Your task to perform on an android device: Show me popular games on the Play Store Image 0: 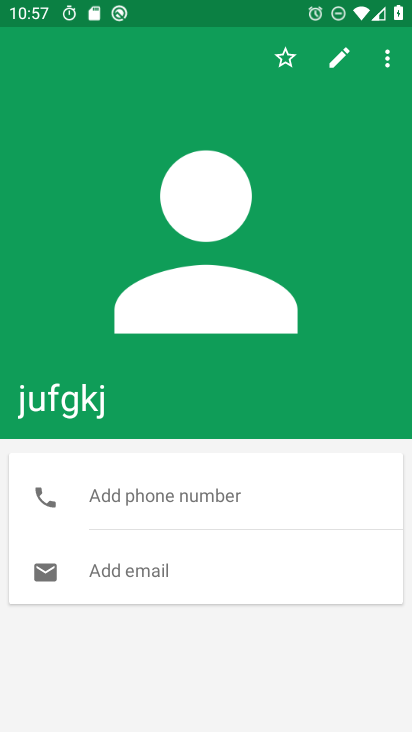
Step 0: press home button
Your task to perform on an android device: Show me popular games on the Play Store Image 1: 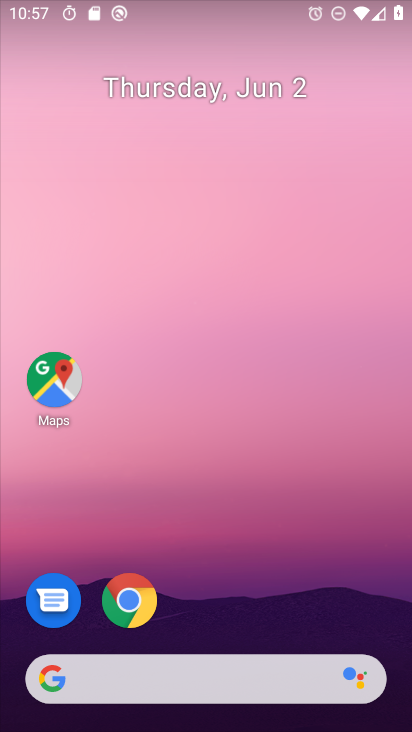
Step 1: drag from (238, 600) to (236, 104)
Your task to perform on an android device: Show me popular games on the Play Store Image 2: 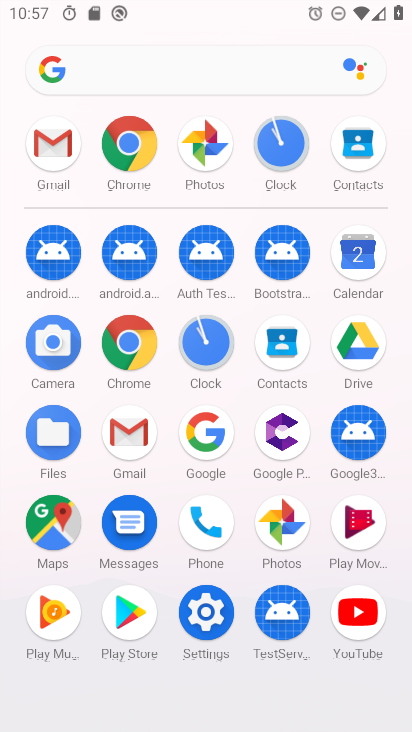
Step 2: click (133, 609)
Your task to perform on an android device: Show me popular games on the Play Store Image 3: 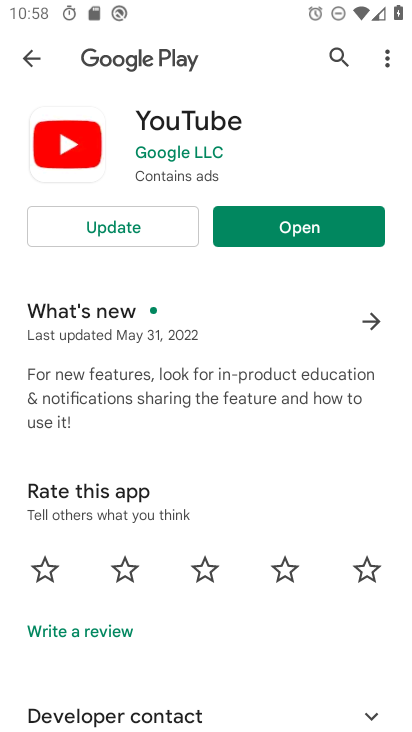
Step 3: press back button
Your task to perform on an android device: Show me popular games on the Play Store Image 4: 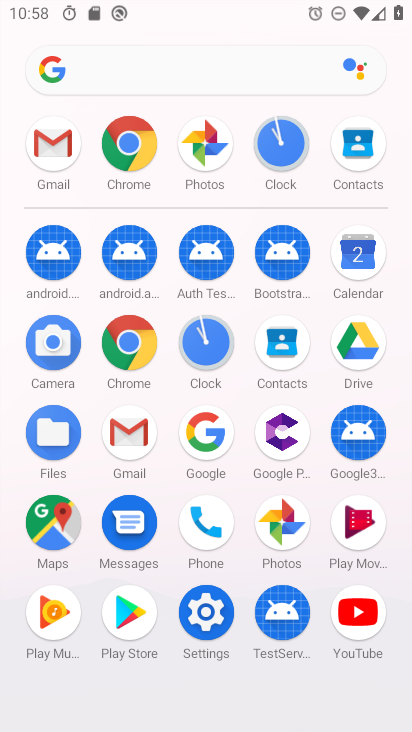
Step 4: click (138, 599)
Your task to perform on an android device: Show me popular games on the Play Store Image 5: 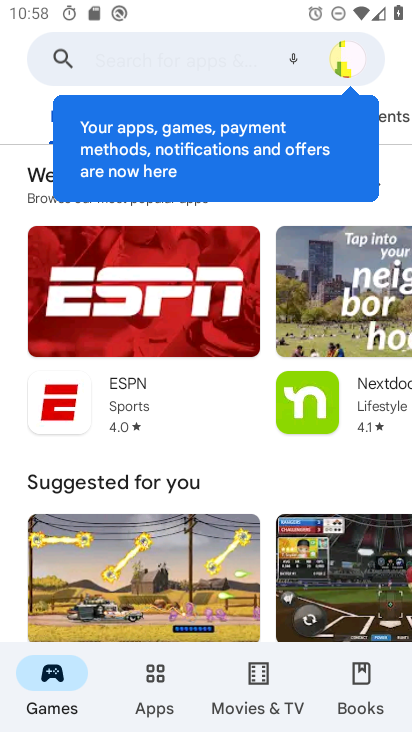
Step 5: drag from (269, 567) to (281, 71)
Your task to perform on an android device: Show me popular games on the Play Store Image 6: 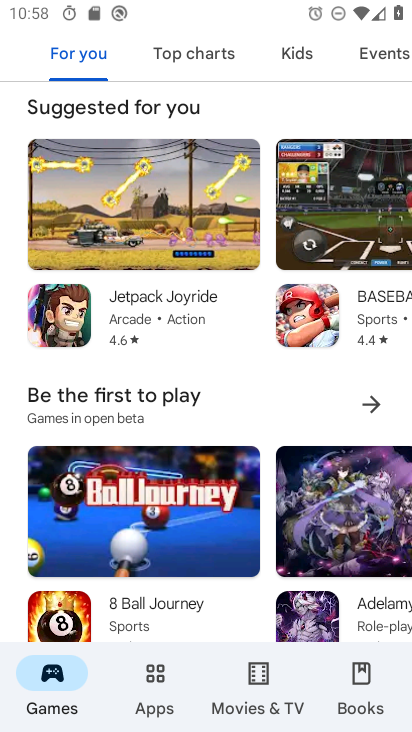
Step 6: drag from (263, 566) to (244, 213)
Your task to perform on an android device: Show me popular games on the Play Store Image 7: 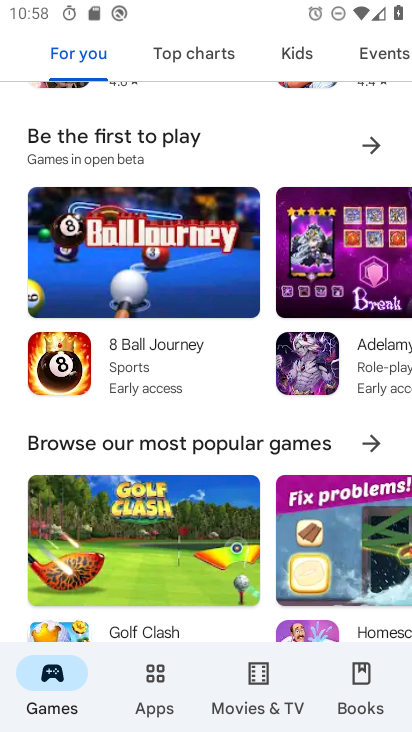
Step 7: click (365, 435)
Your task to perform on an android device: Show me popular games on the Play Store Image 8: 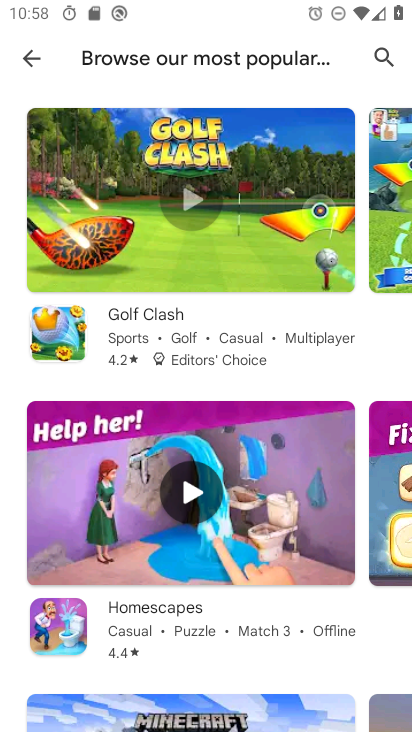
Step 8: task complete